Your task to perform on an android device: Open wifi settings Image 0: 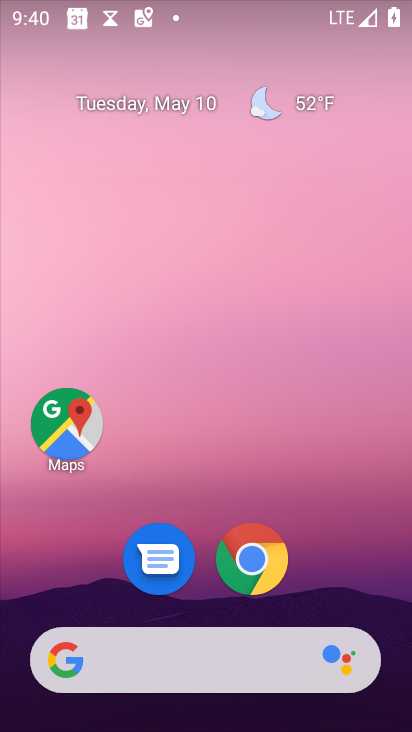
Step 0: drag from (339, 568) to (230, 0)
Your task to perform on an android device: Open wifi settings Image 1: 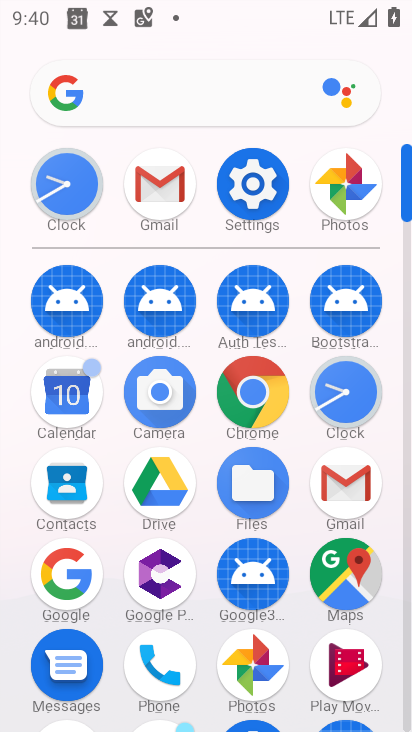
Step 1: drag from (6, 498) to (11, 225)
Your task to perform on an android device: Open wifi settings Image 2: 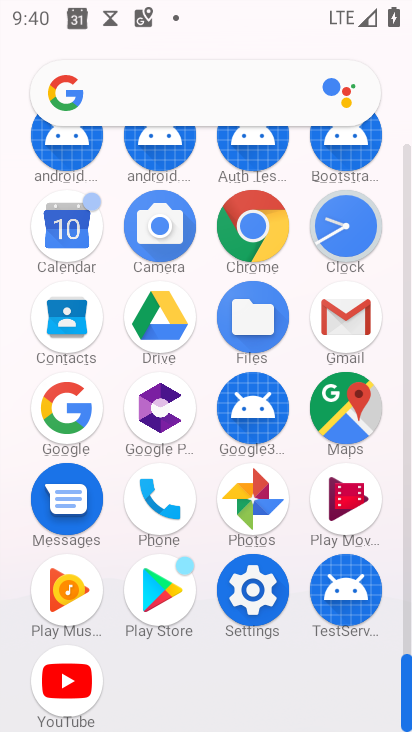
Step 2: click (249, 584)
Your task to perform on an android device: Open wifi settings Image 3: 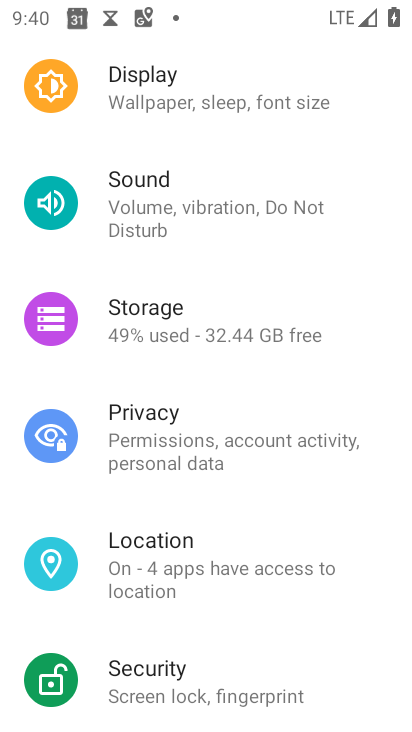
Step 3: drag from (297, 136) to (282, 567)
Your task to perform on an android device: Open wifi settings Image 4: 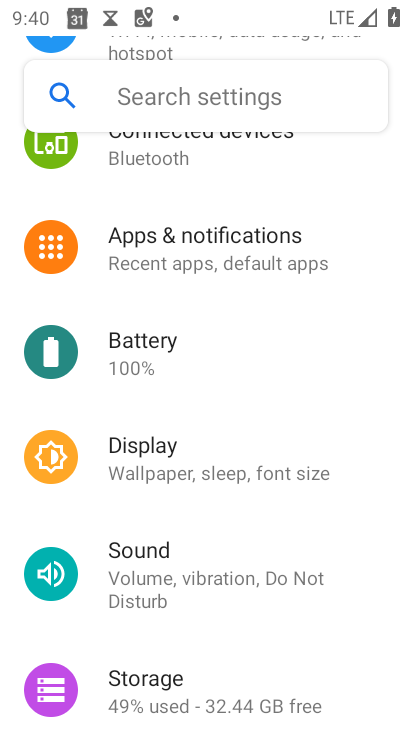
Step 4: drag from (280, 667) to (256, 131)
Your task to perform on an android device: Open wifi settings Image 5: 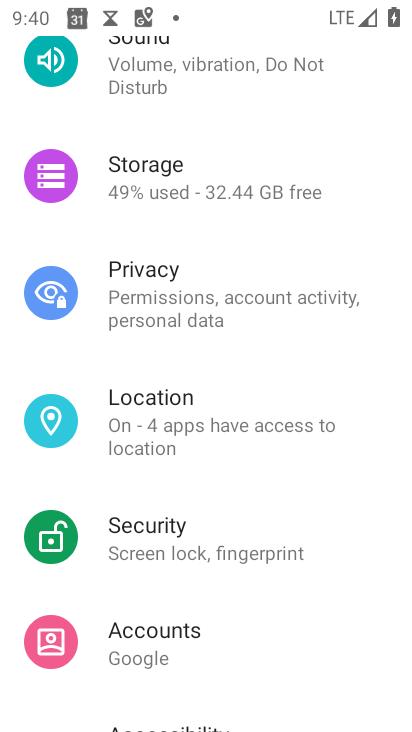
Step 5: drag from (289, 524) to (299, 90)
Your task to perform on an android device: Open wifi settings Image 6: 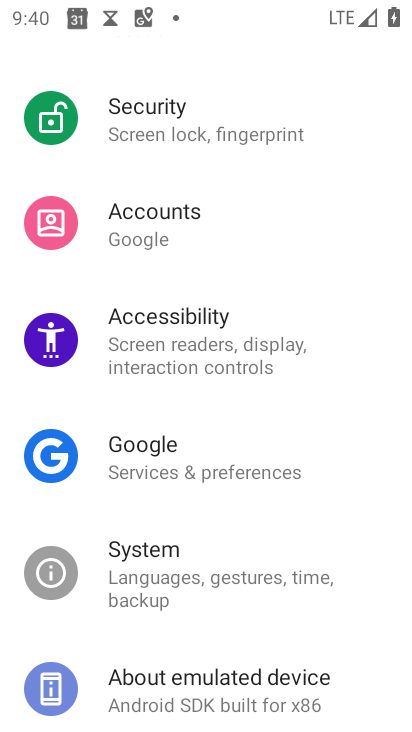
Step 6: drag from (269, 531) to (282, 109)
Your task to perform on an android device: Open wifi settings Image 7: 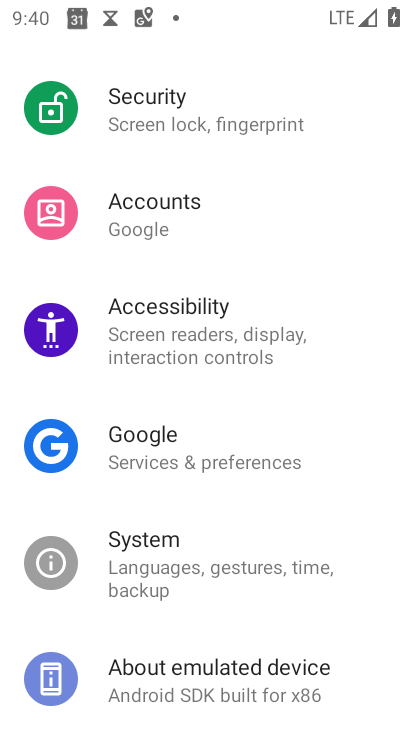
Step 7: drag from (288, 197) to (270, 623)
Your task to perform on an android device: Open wifi settings Image 8: 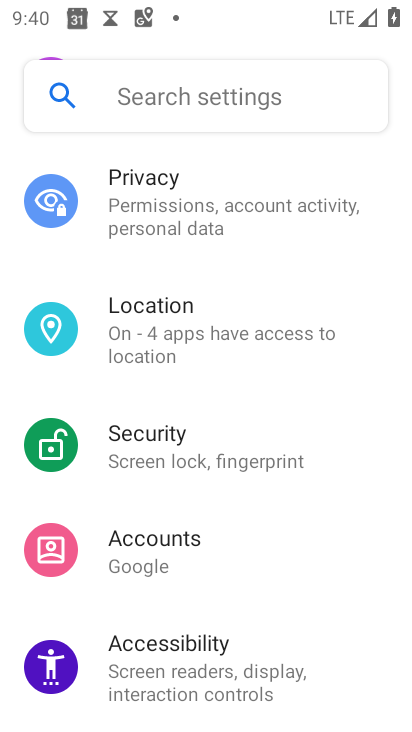
Step 8: drag from (277, 220) to (215, 593)
Your task to perform on an android device: Open wifi settings Image 9: 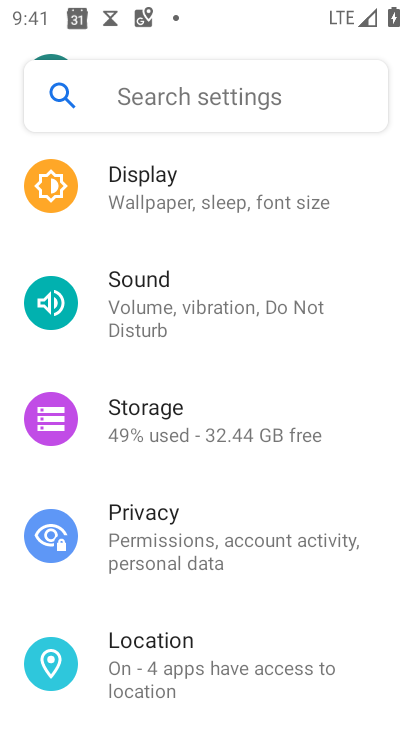
Step 9: drag from (258, 597) to (298, 222)
Your task to perform on an android device: Open wifi settings Image 10: 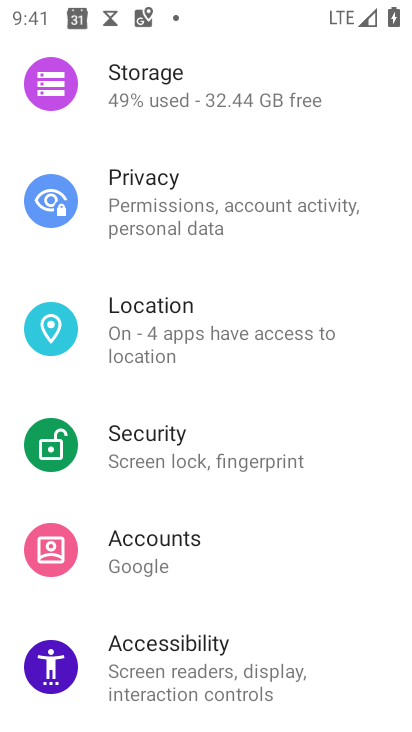
Step 10: drag from (317, 178) to (299, 583)
Your task to perform on an android device: Open wifi settings Image 11: 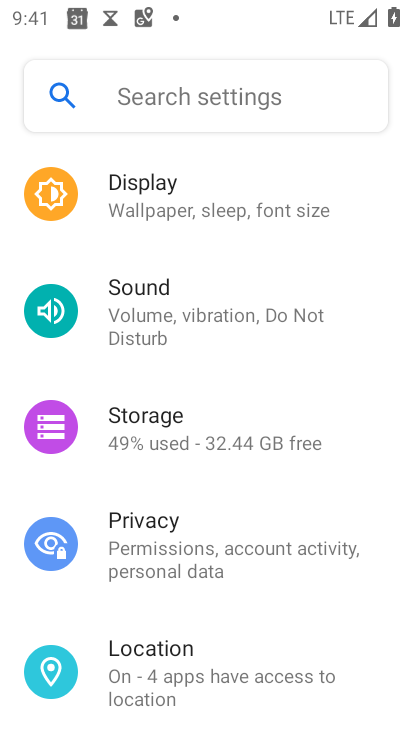
Step 11: drag from (248, 232) to (248, 566)
Your task to perform on an android device: Open wifi settings Image 12: 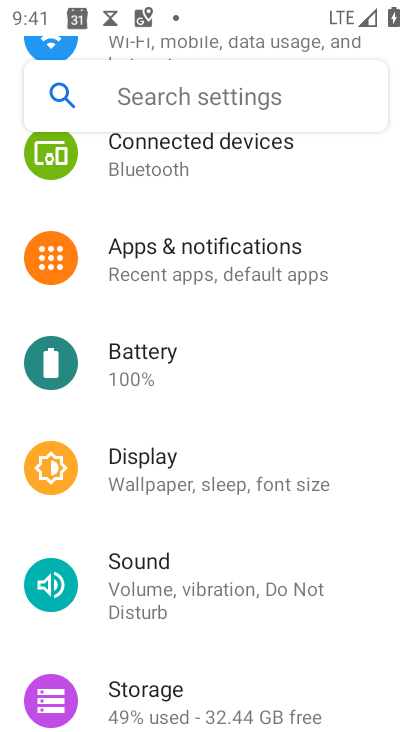
Step 12: drag from (249, 190) to (218, 679)
Your task to perform on an android device: Open wifi settings Image 13: 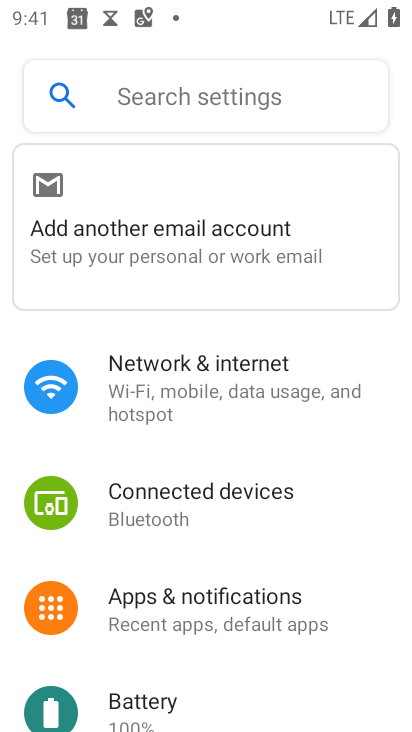
Step 13: click (201, 386)
Your task to perform on an android device: Open wifi settings Image 14: 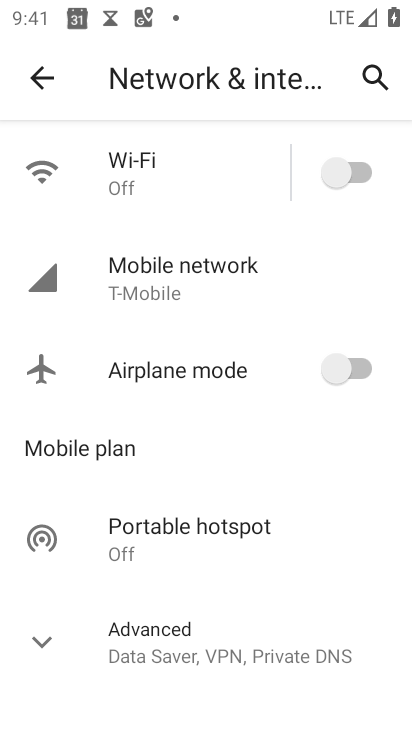
Step 14: click (159, 154)
Your task to perform on an android device: Open wifi settings Image 15: 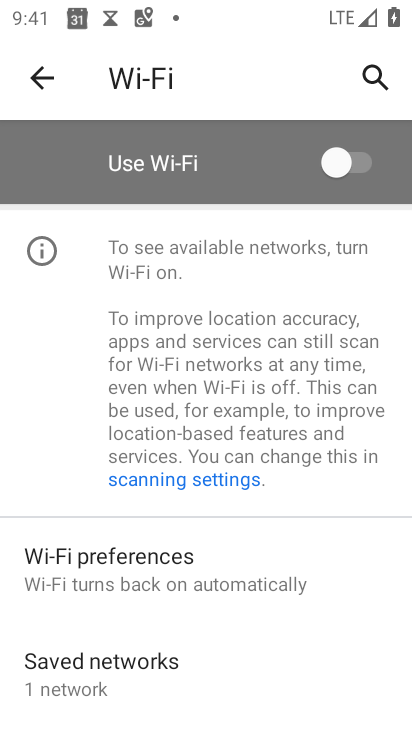
Step 15: task complete